Your task to perform on an android device: Go to accessibility settings Image 0: 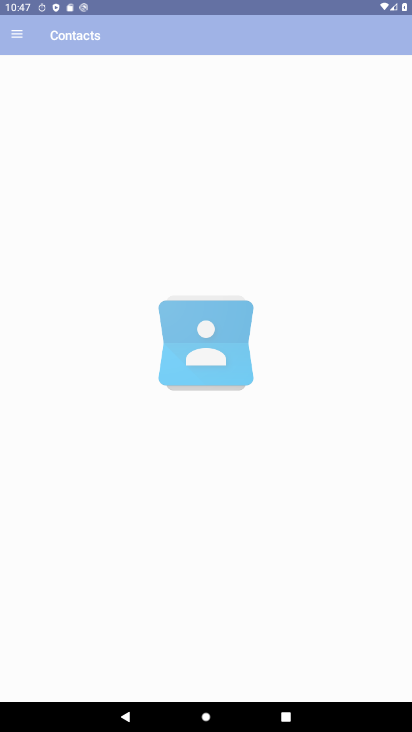
Step 0: drag from (361, 631) to (198, 120)
Your task to perform on an android device: Go to accessibility settings Image 1: 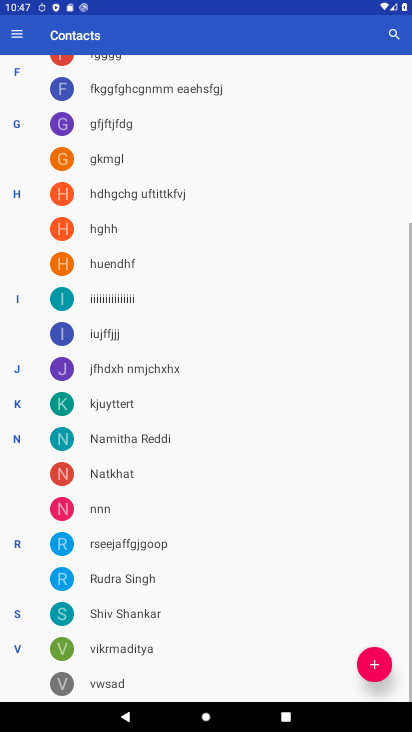
Step 1: press home button
Your task to perform on an android device: Go to accessibility settings Image 2: 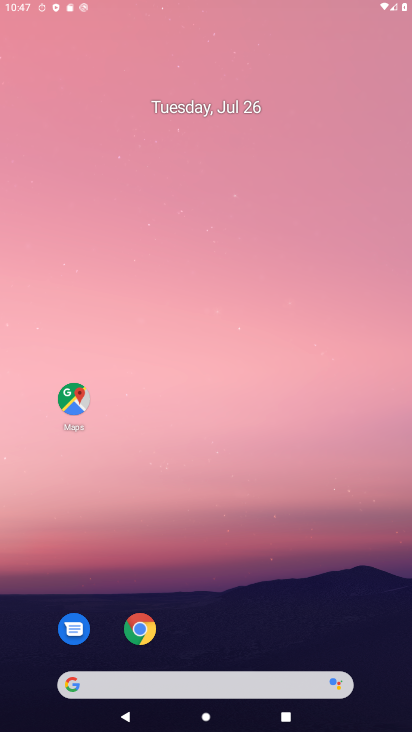
Step 2: drag from (342, 628) to (248, 98)
Your task to perform on an android device: Go to accessibility settings Image 3: 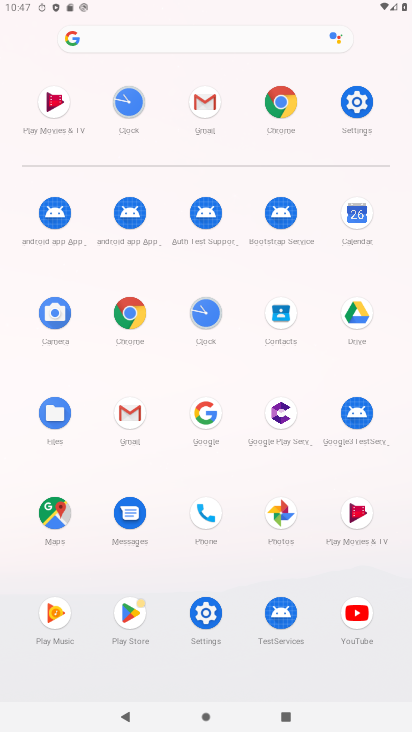
Step 3: click (205, 628)
Your task to perform on an android device: Go to accessibility settings Image 4: 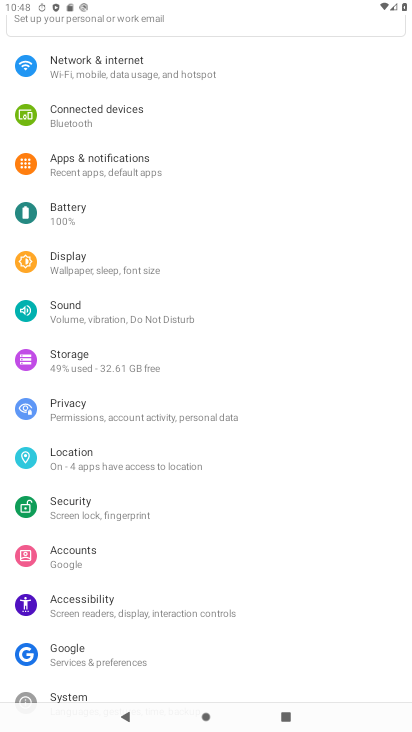
Step 4: click (87, 612)
Your task to perform on an android device: Go to accessibility settings Image 5: 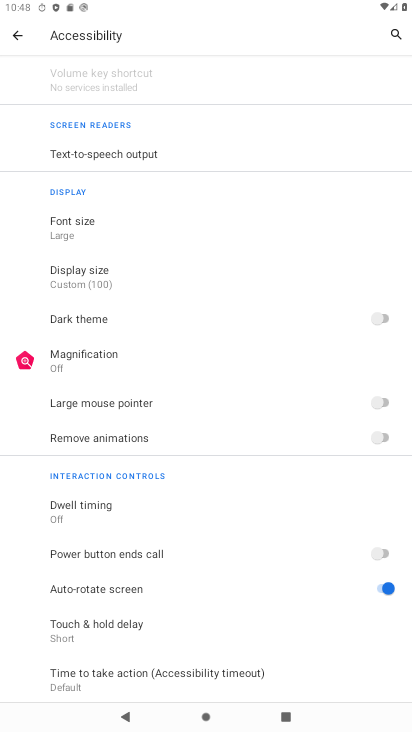
Step 5: task complete